Your task to perform on an android device: Search for vegetarian restaurants on Maps Image 0: 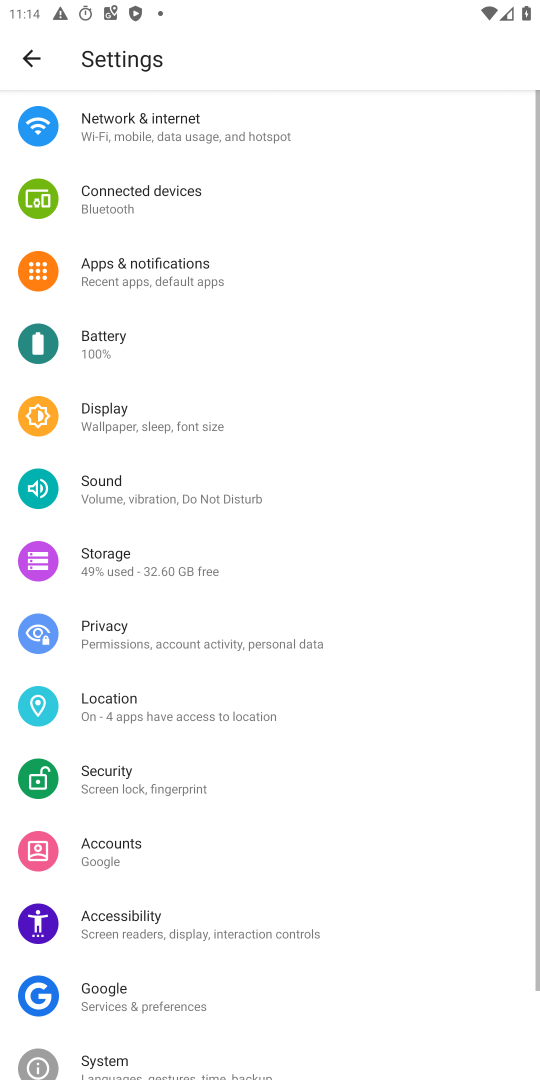
Step 0: press home button
Your task to perform on an android device: Search for vegetarian restaurants on Maps Image 1: 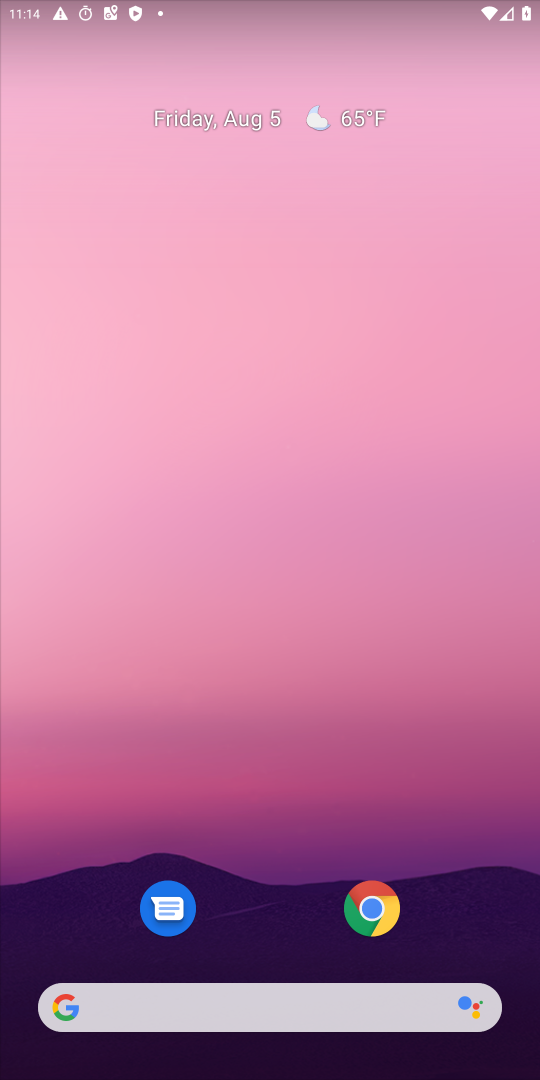
Step 1: drag from (42, 1049) to (456, 299)
Your task to perform on an android device: Search for vegetarian restaurants on Maps Image 2: 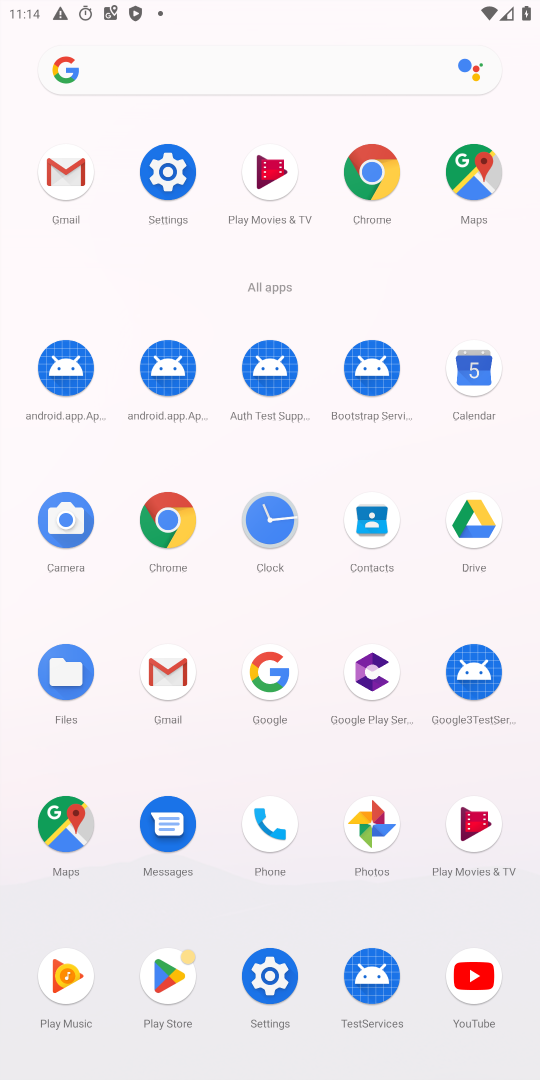
Step 2: click (85, 841)
Your task to perform on an android device: Search for vegetarian restaurants on Maps Image 3: 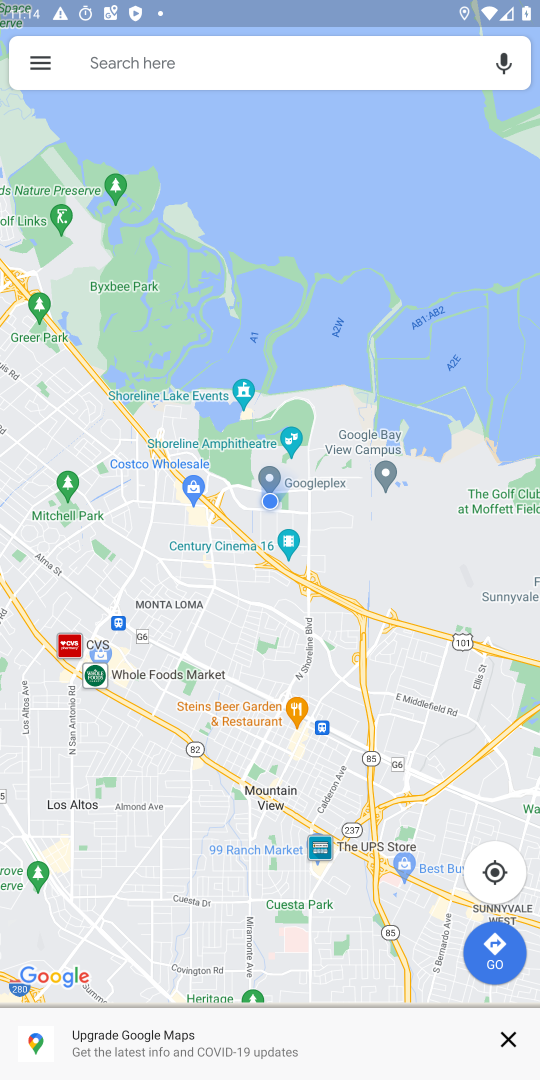
Step 3: click (123, 76)
Your task to perform on an android device: Search for vegetarian restaurants on Maps Image 4: 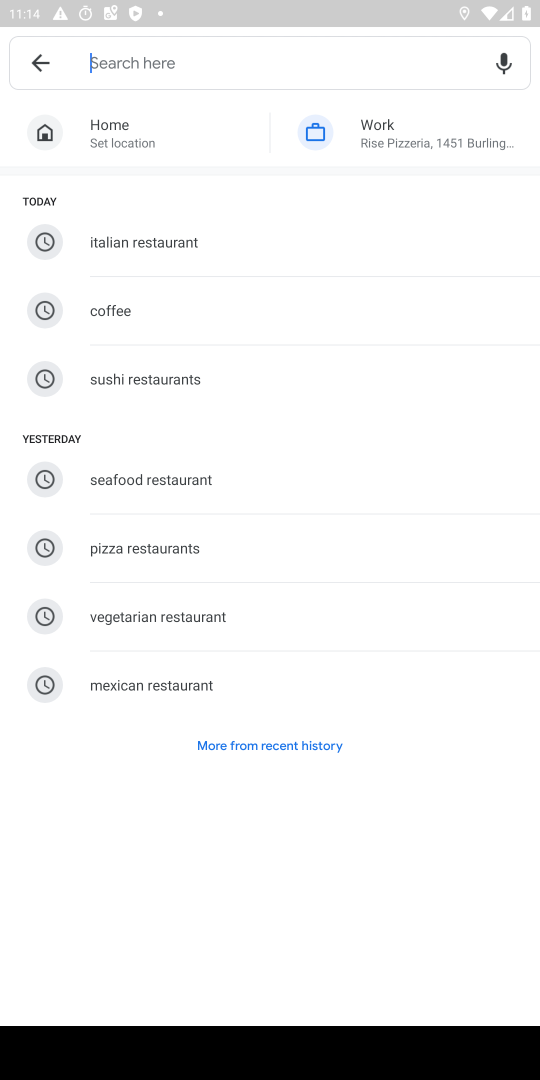
Step 4: click (200, 608)
Your task to perform on an android device: Search for vegetarian restaurants on Maps Image 5: 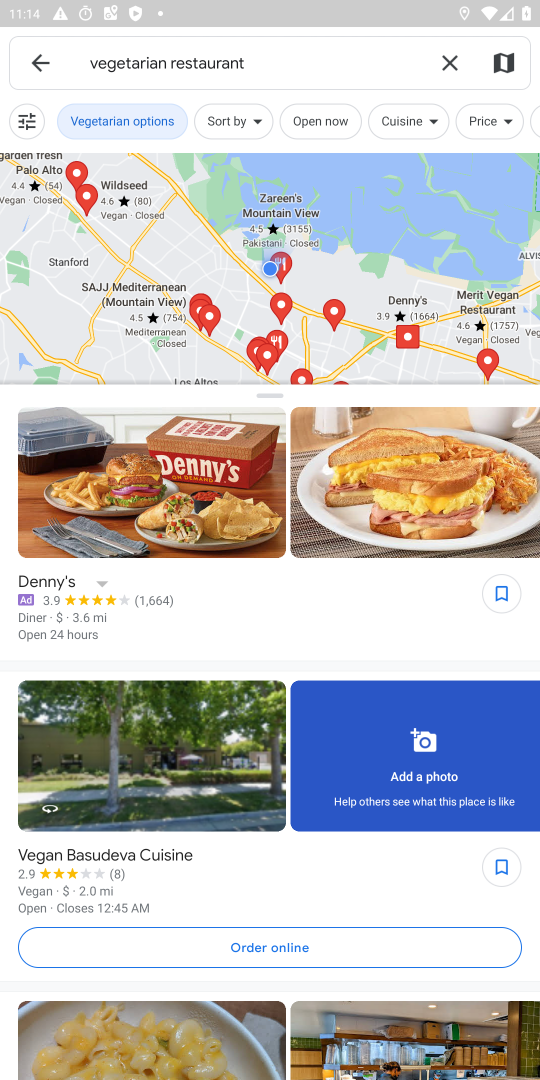
Step 5: task complete